Your task to perform on an android device: find snoozed emails in the gmail app Image 0: 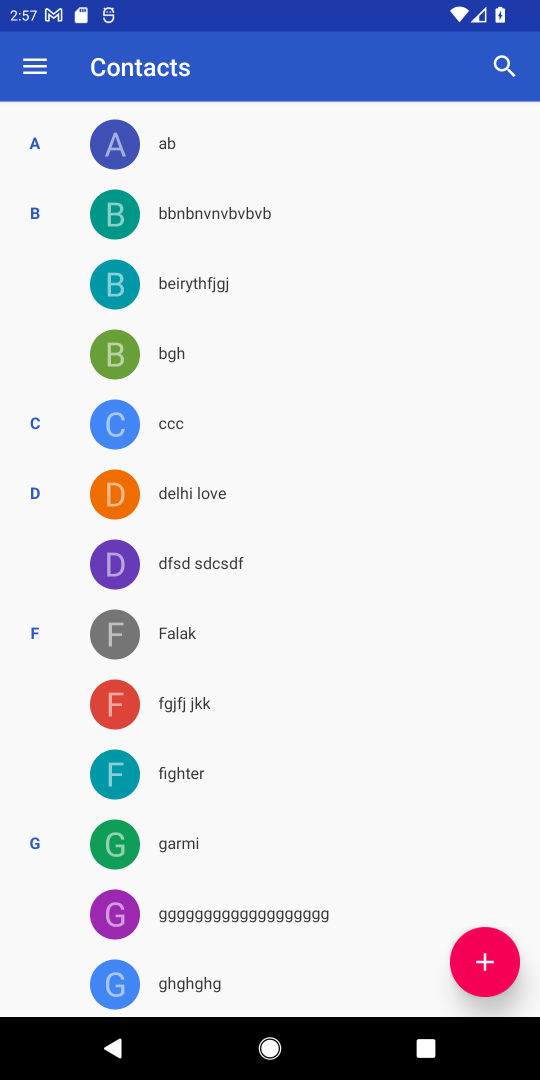
Step 0: press home button
Your task to perform on an android device: find snoozed emails in the gmail app Image 1: 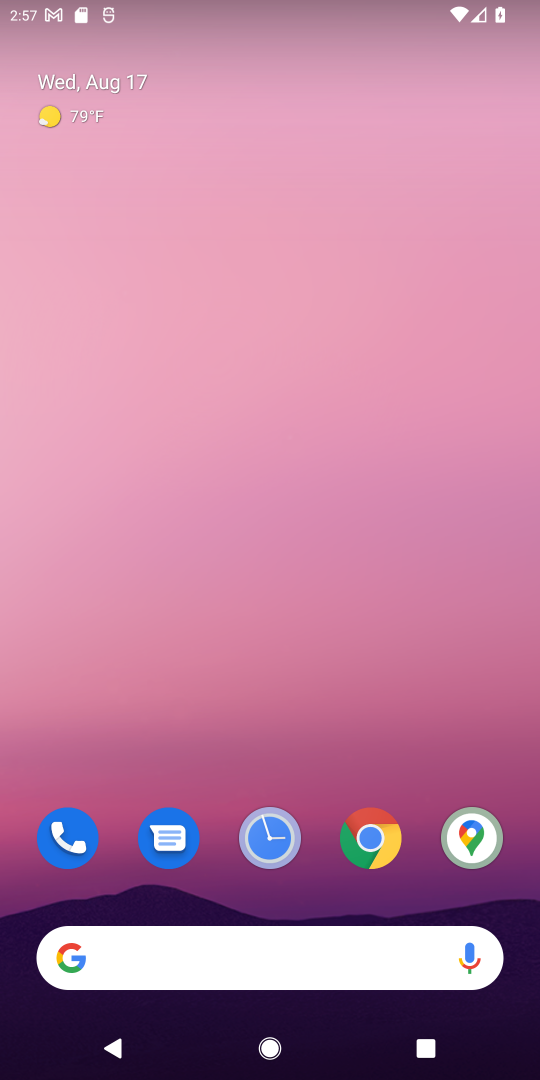
Step 1: drag from (160, 899) to (182, 372)
Your task to perform on an android device: find snoozed emails in the gmail app Image 2: 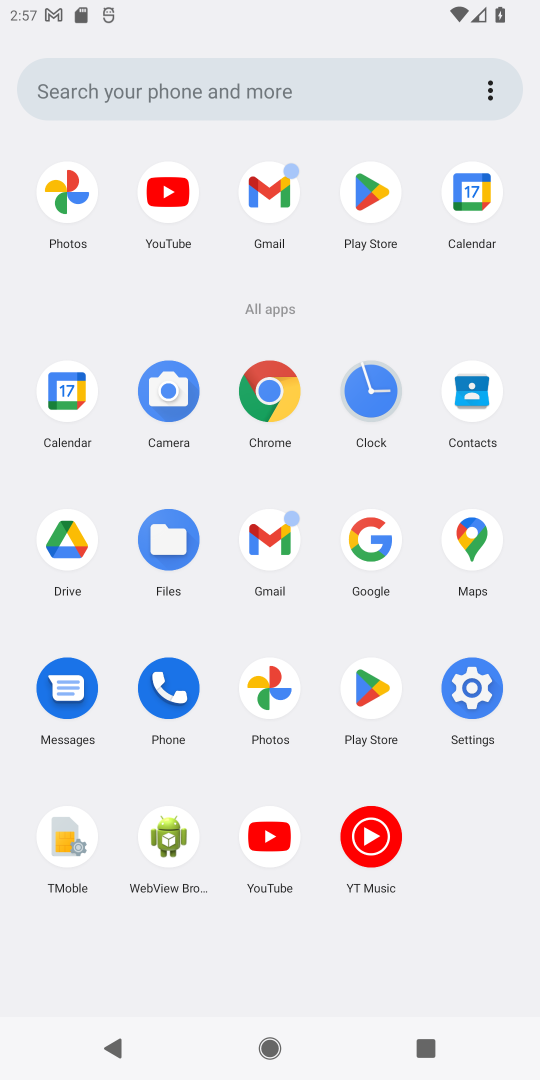
Step 2: click (267, 539)
Your task to perform on an android device: find snoozed emails in the gmail app Image 3: 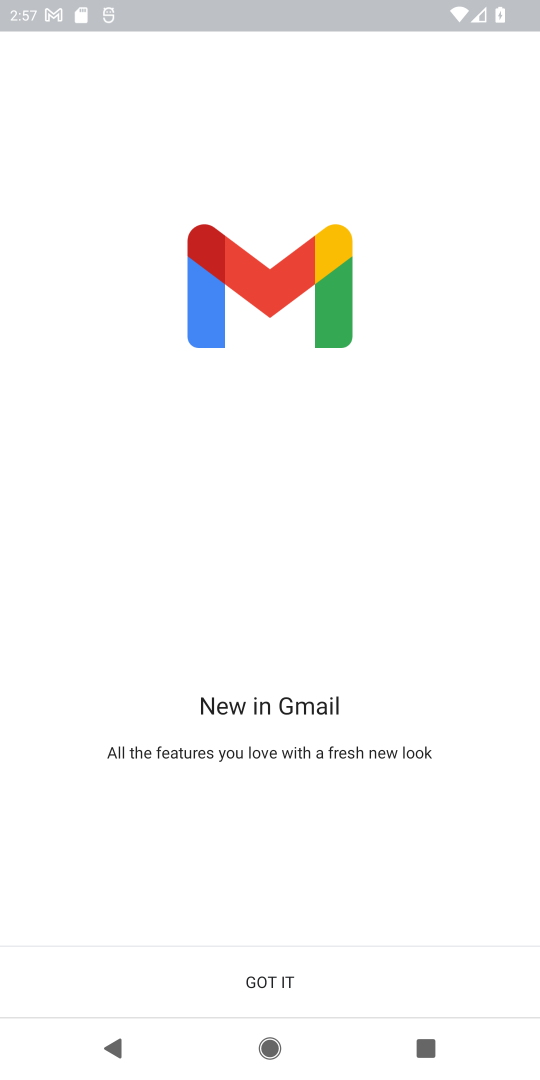
Step 3: click (253, 986)
Your task to perform on an android device: find snoozed emails in the gmail app Image 4: 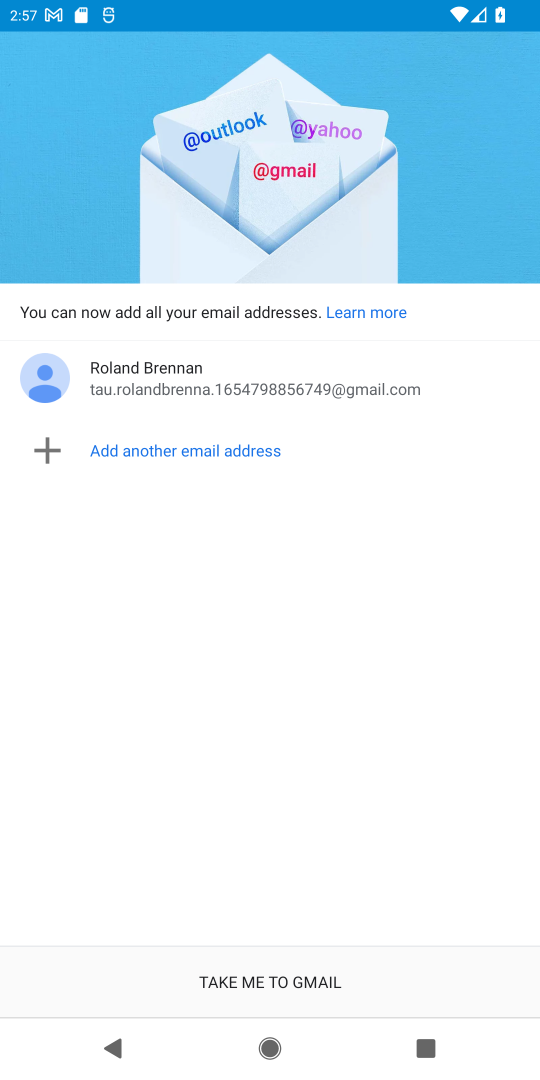
Step 4: click (260, 985)
Your task to perform on an android device: find snoozed emails in the gmail app Image 5: 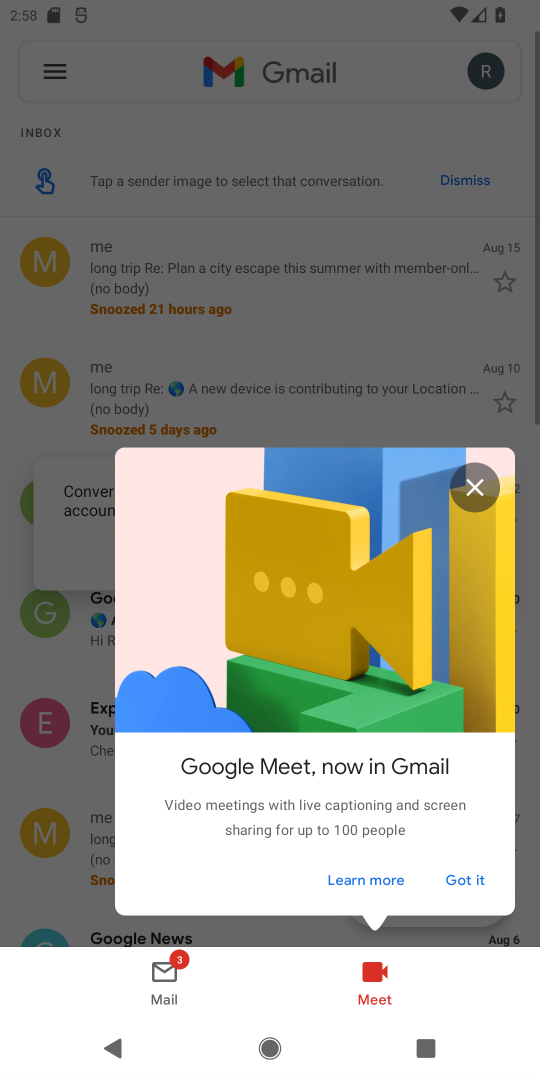
Step 5: click (472, 493)
Your task to perform on an android device: find snoozed emails in the gmail app Image 6: 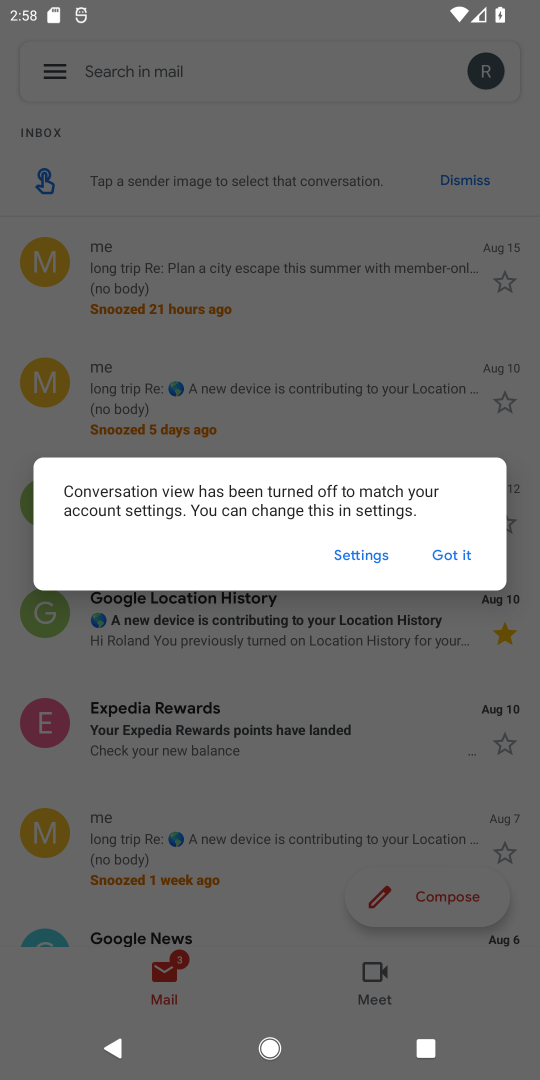
Step 6: click (442, 540)
Your task to perform on an android device: find snoozed emails in the gmail app Image 7: 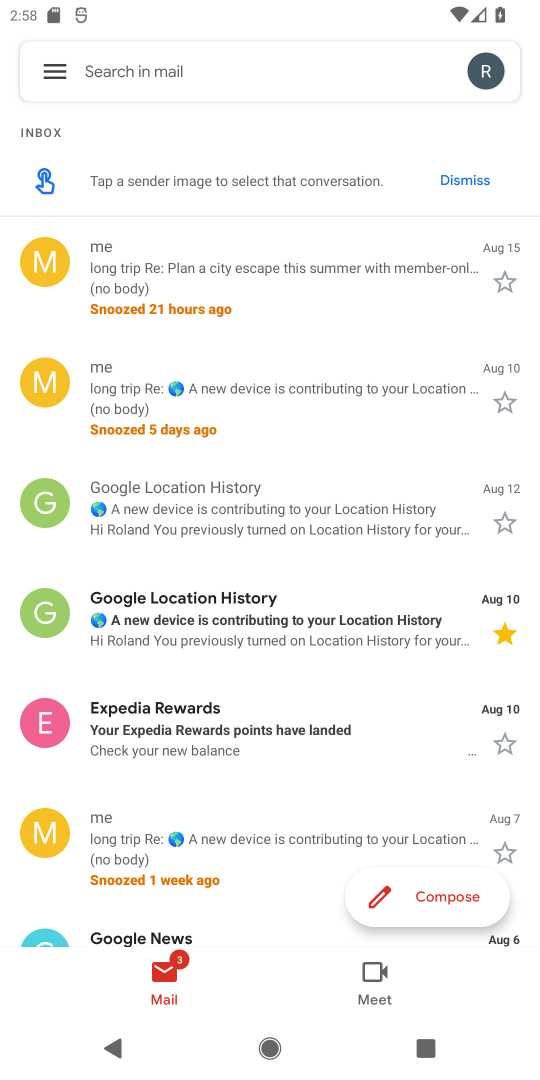
Step 7: click (51, 77)
Your task to perform on an android device: find snoozed emails in the gmail app Image 8: 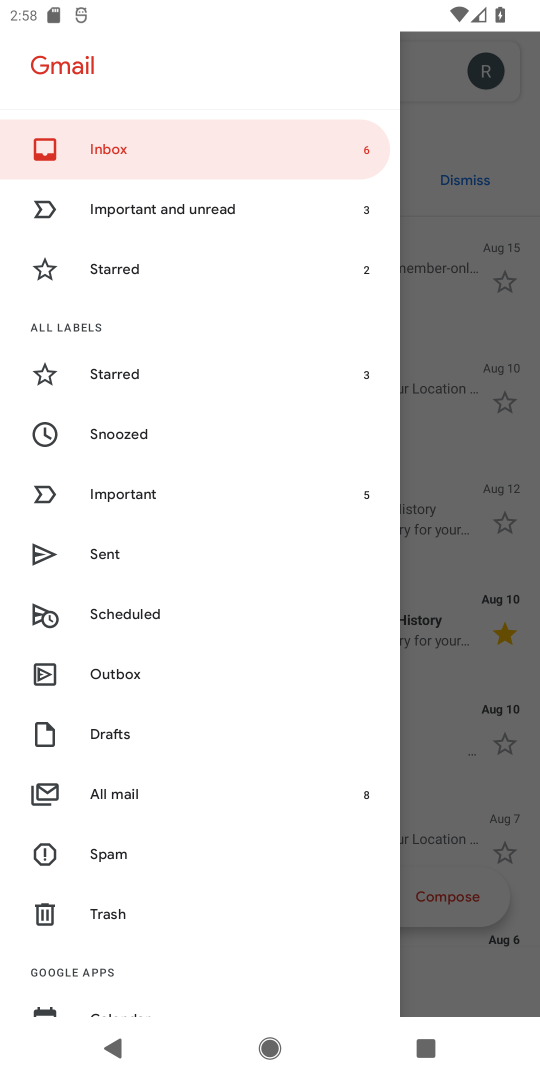
Step 8: click (123, 426)
Your task to perform on an android device: find snoozed emails in the gmail app Image 9: 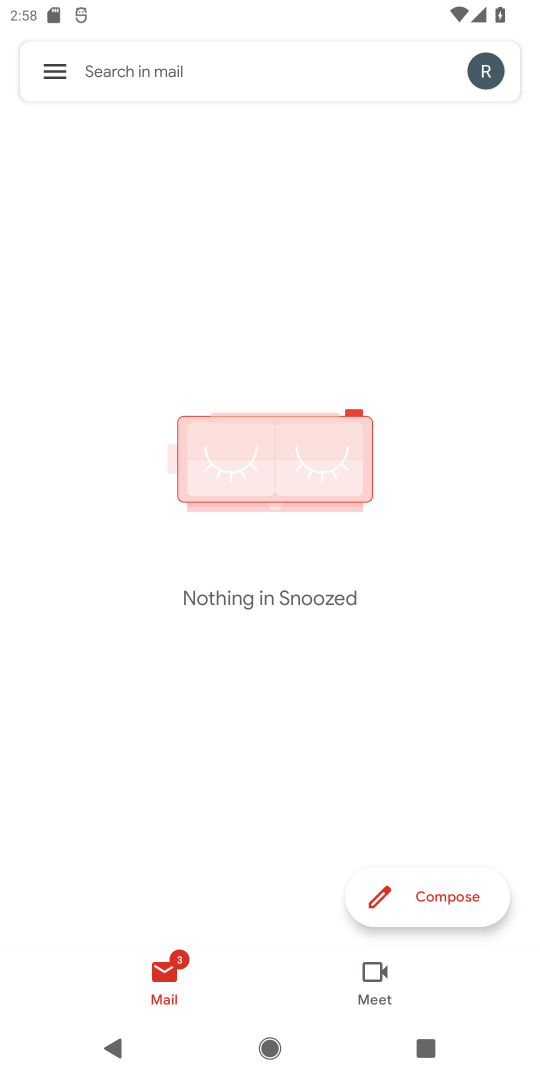
Step 9: task complete